Your task to perform on an android device: Clear all items from cart on target.com. Search for razer thresher on target.com, select the first entry, and add it to the cart. Image 0: 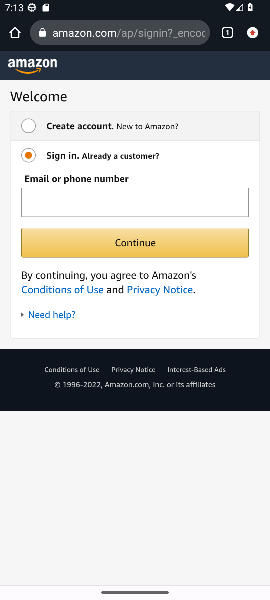
Step 0: press home button
Your task to perform on an android device: Clear all items from cart on target.com. Search for razer thresher on target.com, select the first entry, and add it to the cart. Image 1: 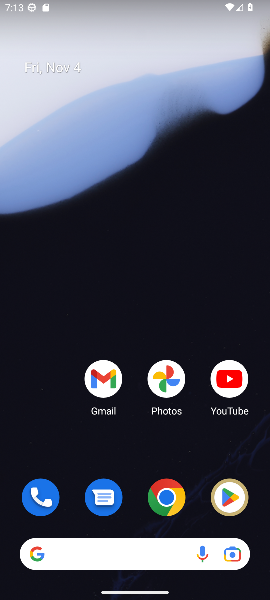
Step 1: click (173, 492)
Your task to perform on an android device: Clear all items from cart on target.com. Search for razer thresher on target.com, select the first entry, and add it to the cart. Image 2: 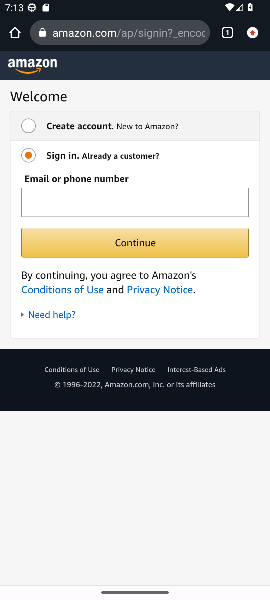
Step 2: click (123, 30)
Your task to perform on an android device: Clear all items from cart on target.com. Search for razer thresher on target.com, select the first entry, and add it to the cart. Image 3: 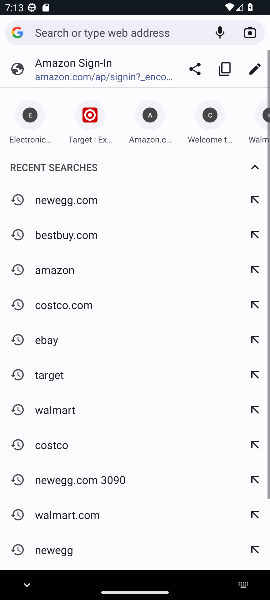
Step 3: click (86, 121)
Your task to perform on an android device: Clear all items from cart on target.com. Search for razer thresher on target.com, select the first entry, and add it to the cart. Image 4: 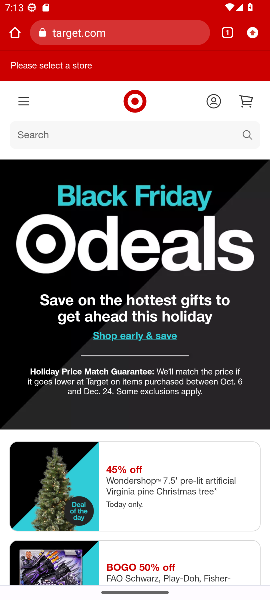
Step 4: click (244, 99)
Your task to perform on an android device: Clear all items from cart on target.com. Search for razer thresher on target.com, select the first entry, and add it to the cart. Image 5: 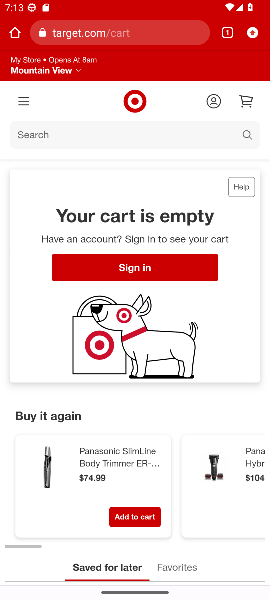
Step 5: click (246, 138)
Your task to perform on an android device: Clear all items from cart on target.com. Search for razer thresher on target.com, select the first entry, and add it to the cart. Image 6: 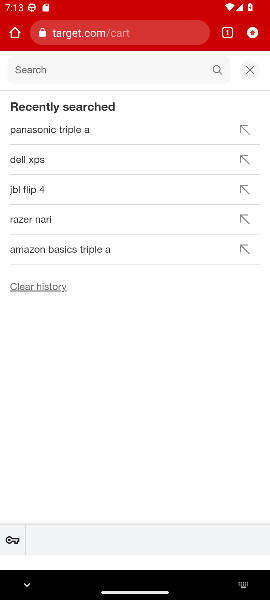
Step 6: type "razer thresher"
Your task to perform on an android device: Clear all items from cart on target.com. Search for razer thresher on target.com, select the first entry, and add it to the cart. Image 7: 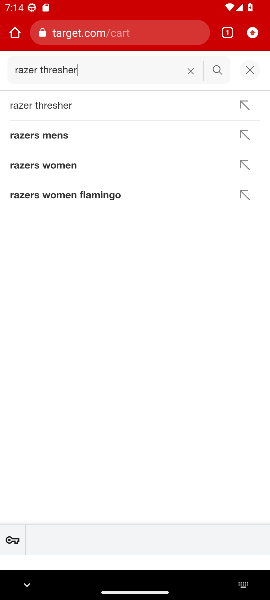
Step 7: click (51, 105)
Your task to perform on an android device: Clear all items from cart on target.com. Search for razer thresher on target.com, select the first entry, and add it to the cart. Image 8: 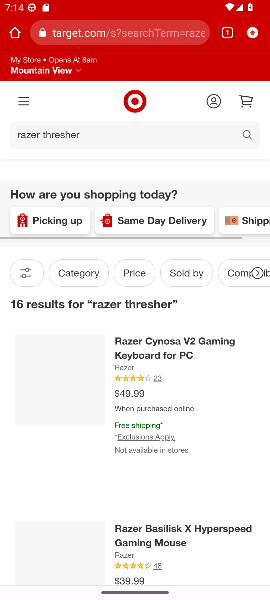
Step 8: task complete